Your task to perform on an android device: Toggle the flashlight Image 0: 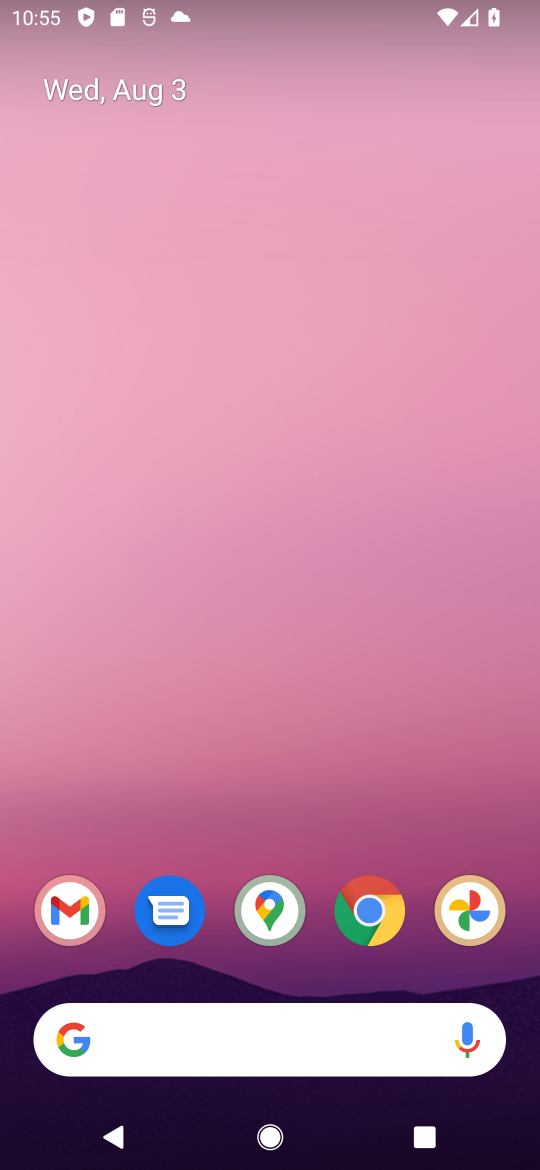
Step 0: press home button
Your task to perform on an android device: Toggle the flashlight Image 1: 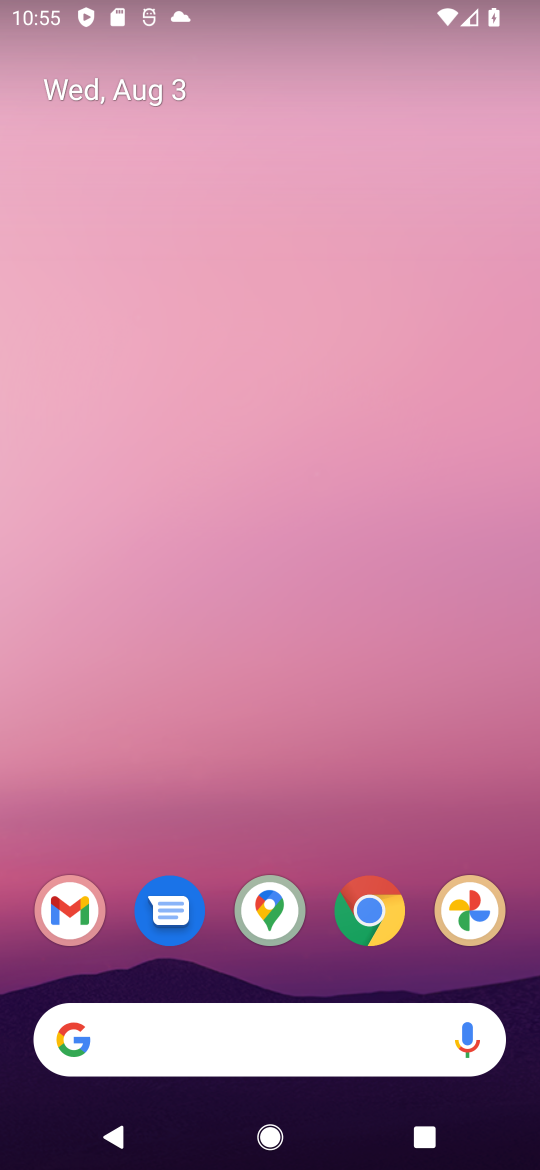
Step 1: drag from (306, 20) to (274, 923)
Your task to perform on an android device: Toggle the flashlight Image 2: 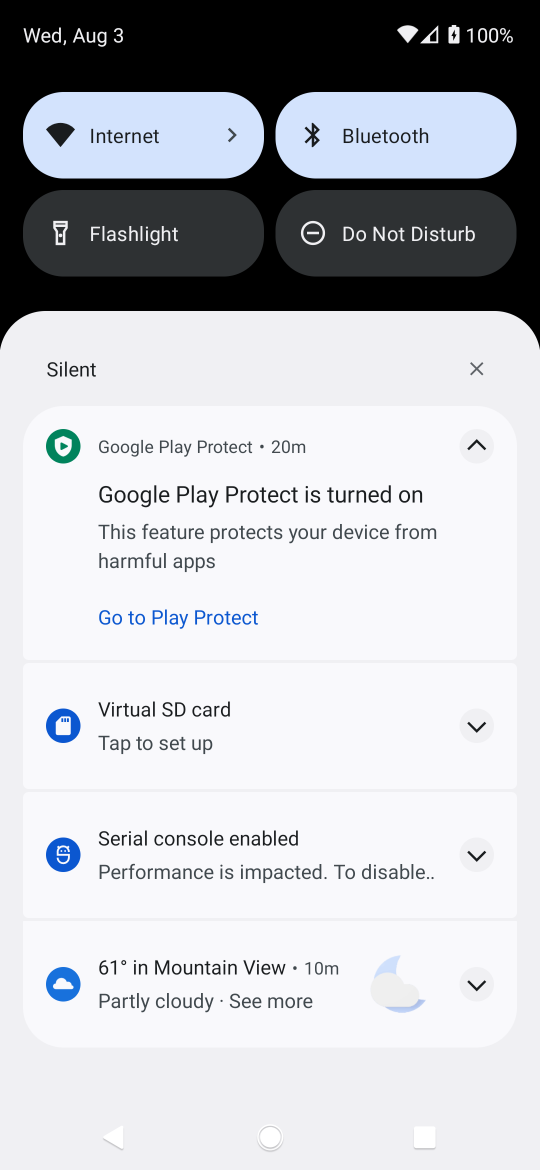
Step 2: drag from (268, 275) to (288, 1014)
Your task to perform on an android device: Toggle the flashlight Image 3: 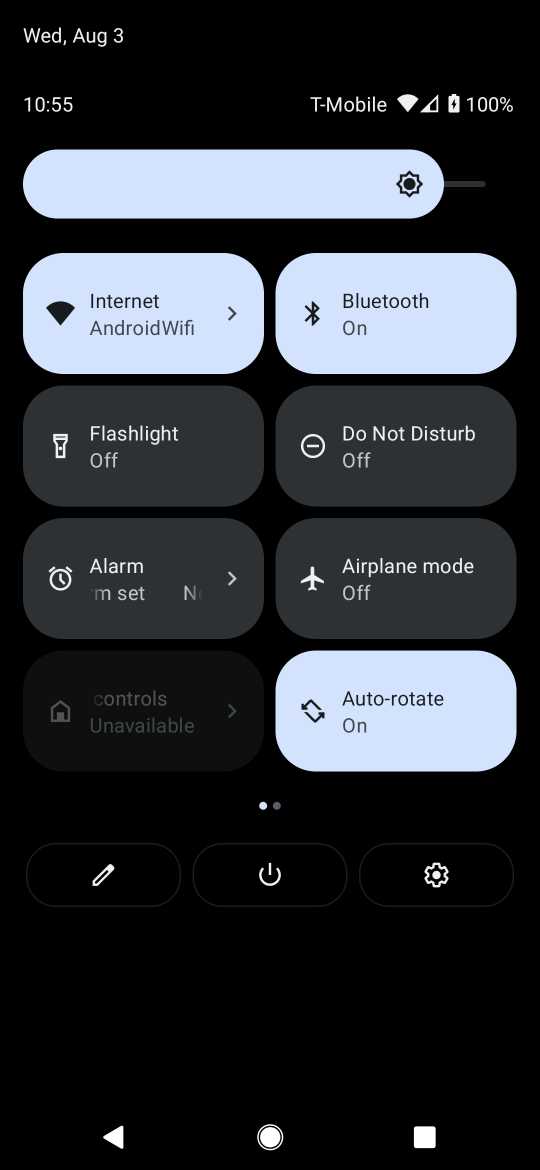
Step 3: click (113, 445)
Your task to perform on an android device: Toggle the flashlight Image 4: 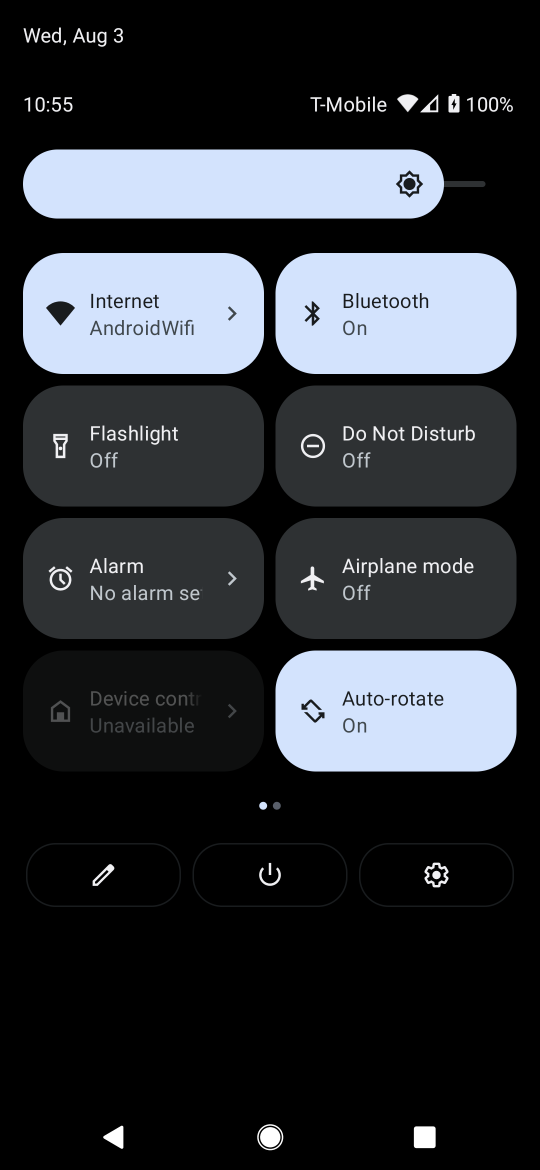
Step 4: click (112, 447)
Your task to perform on an android device: Toggle the flashlight Image 5: 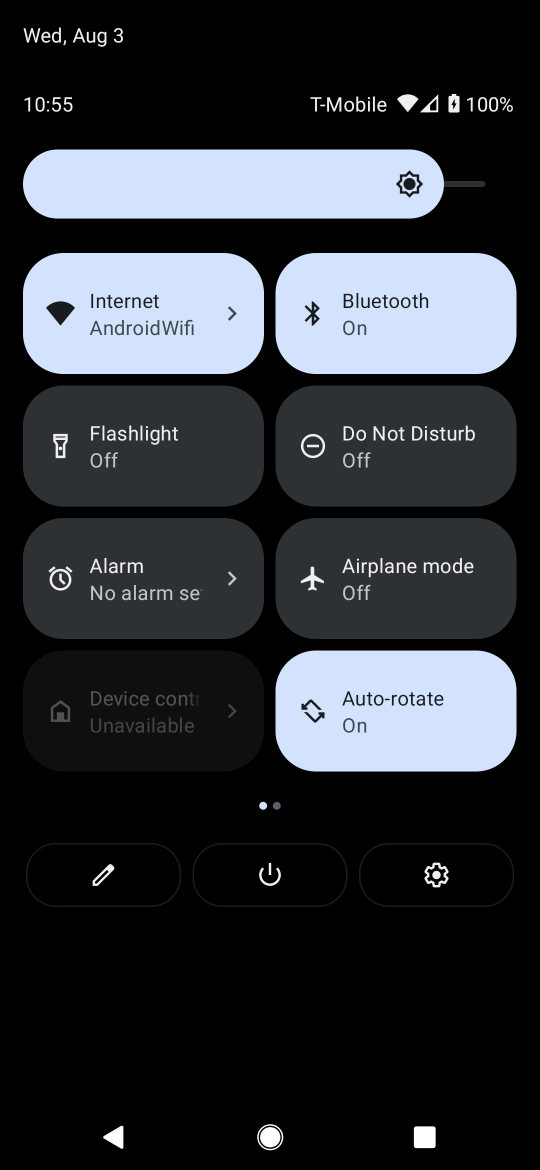
Step 5: task complete